Your task to perform on an android device: find snoozed emails in the gmail app Image 0: 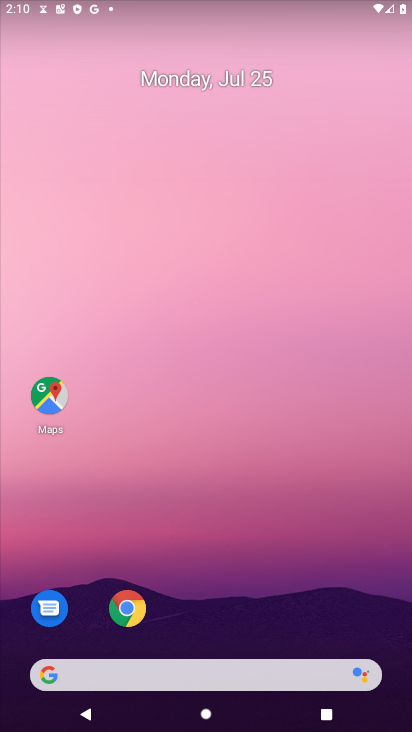
Step 0: drag from (158, 662) to (188, 109)
Your task to perform on an android device: find snoozed emails in the gmail app Image 1: 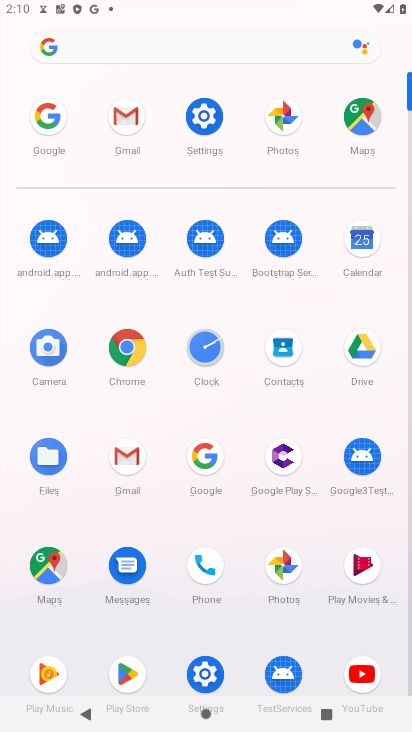
Step 1: click (124, 457)
Your task to perform on an android device: find snoozed emails in the gmail app Image 2: 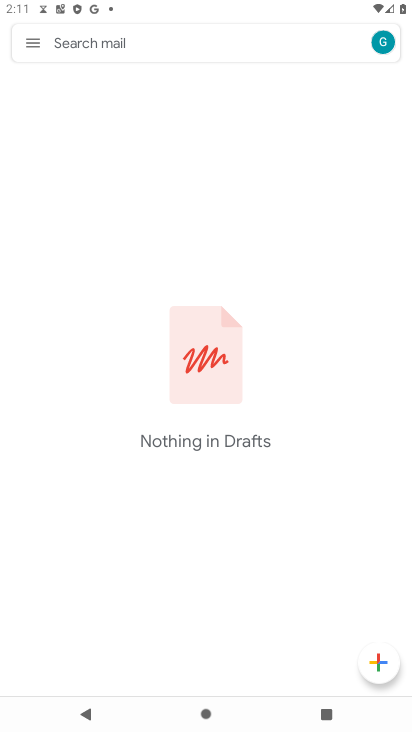
Step 2: click (34, 41)
Your task to perform on an android device: find snoozed emails in the gmail app Image 3: 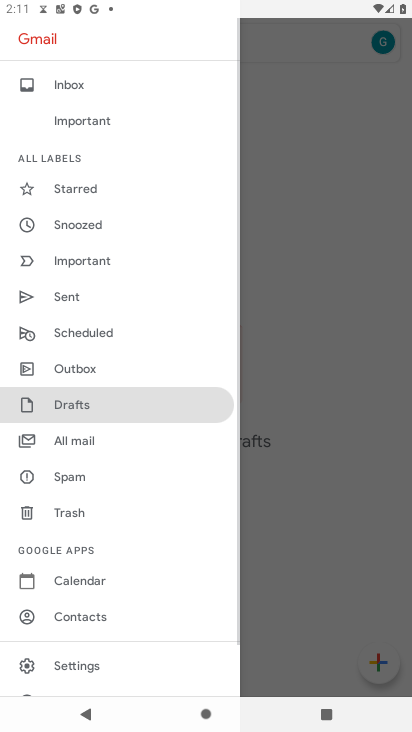
Step 3: click (53, 90)
Your task to perform on an android device: find snoozed emails in the gmail app Image 4: 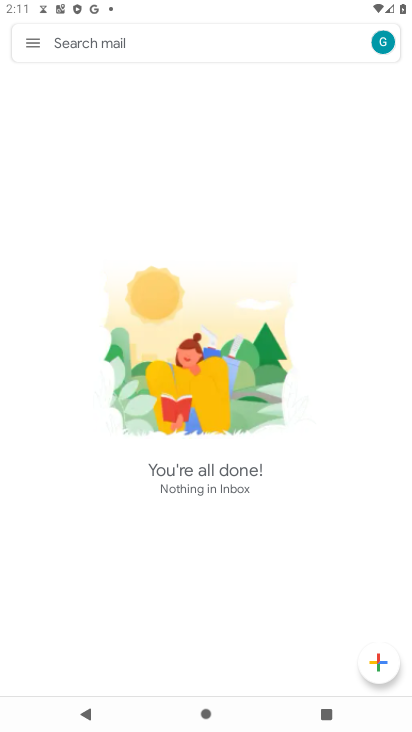
Step 4: click (37, 45)
Your task to perform on an android device: find snoozed emails in the gmail app Image 5: 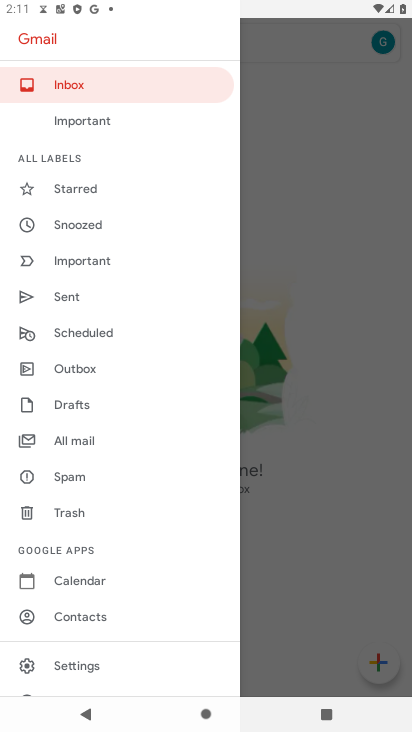
Step 5: click (61, 122)
Your task to perform on an android device: find snoozed emails in the gmail app Image 6: 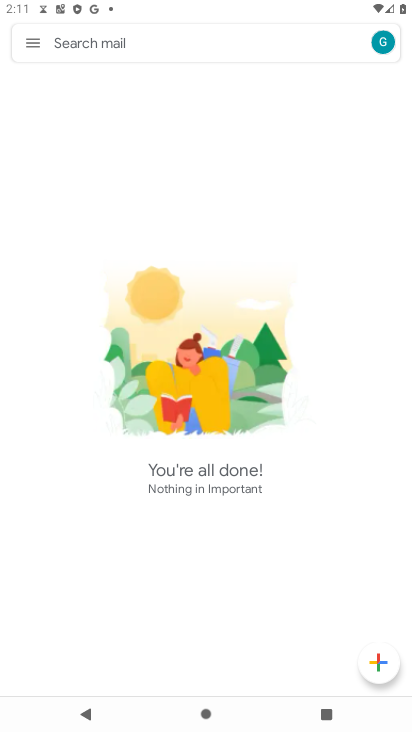
Step 6: click (35, 44)
Your task to perform on an android device: find snoozed emails in the gmail app Image 7: 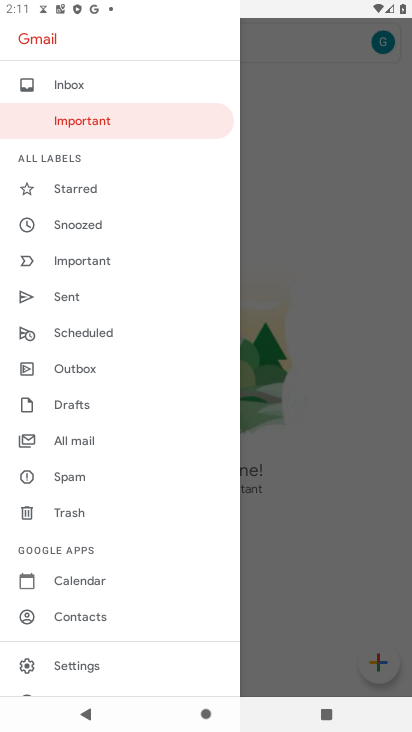
Step 7: click (63, 194)
Your task to perform on an android device: find snoozed emails in the gmail app Image 8: 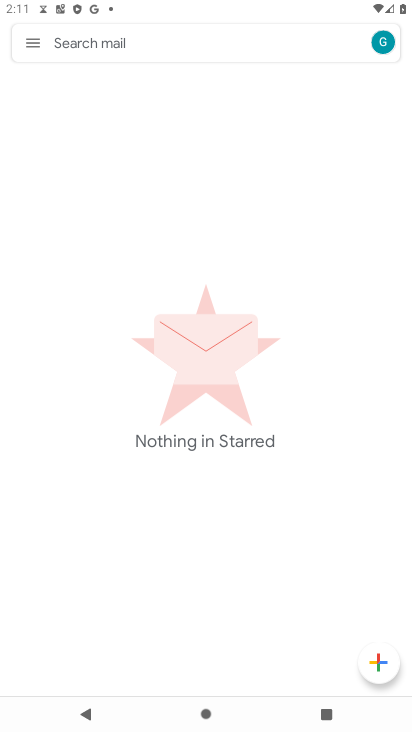
Step 8: click (34, 46)
Your task to perform on an android device: find snoozed emails in the gmail app Image 9: 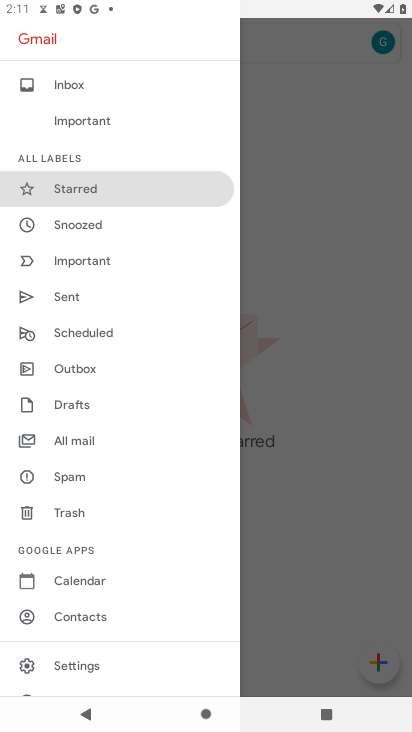
Step 9: click (78, 223)
Your task to perform on an android device: find snoozed emails in the gmail app Image 10: 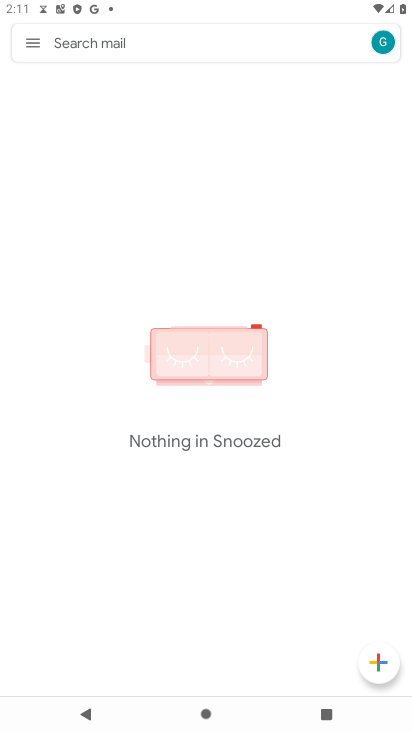
Step 10: click (34, 43)
Your task to perform on an android device: find snoozed emails in the gmail app Image 11: 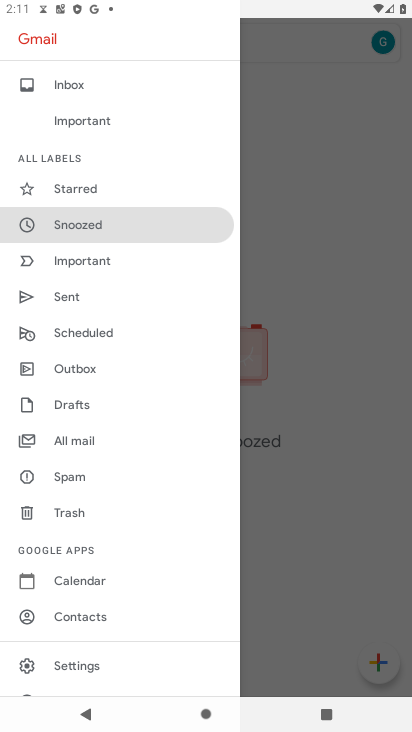
Step 11: click (55, 260)
Your task to perform on an android device: find snoozed emails in the gmail app Image 12: 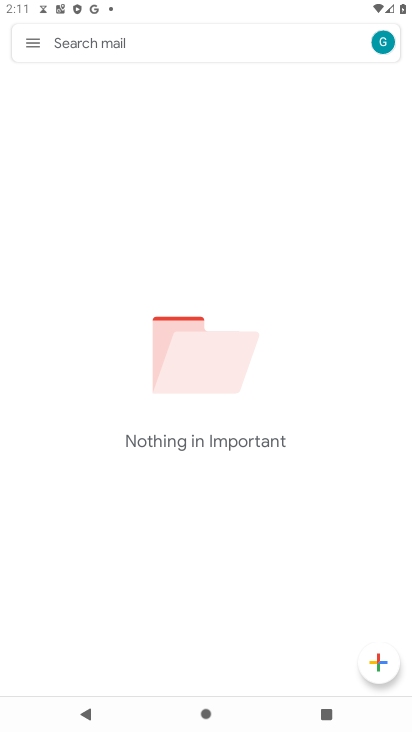
Step 12: task complete